Your task to perform on an android device: Go to Yahoo.com Image 0: 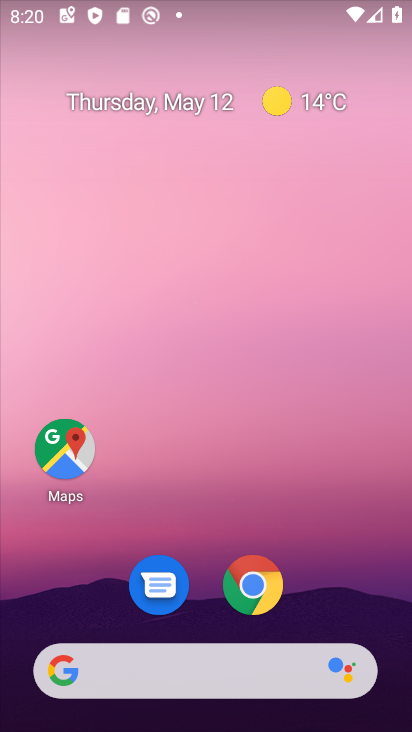
Step 0: click (146, 669)
Your task to perform on an android device: Go to Yahoo.com Image 1: 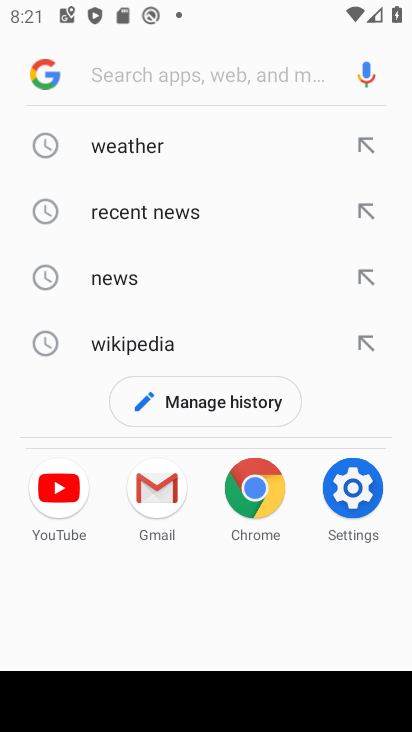
Step 1: type "yahoo.com"
Your task to perform on an android device: Go to Yahoo.com Image 2: 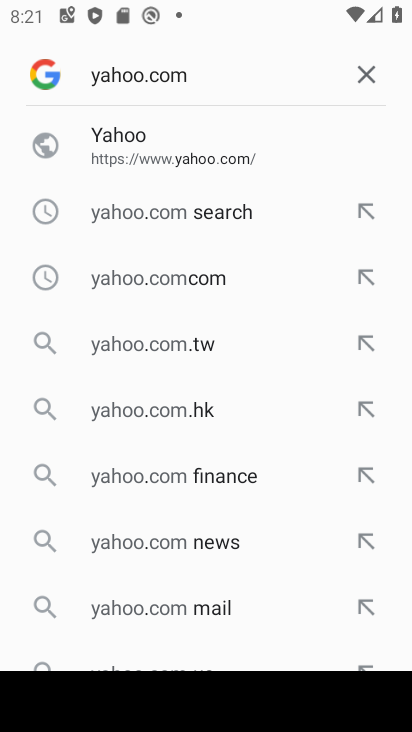
Step 2: click (123, 140)
Your task to perform on an android device: Go to Yahoo.com Image 3: 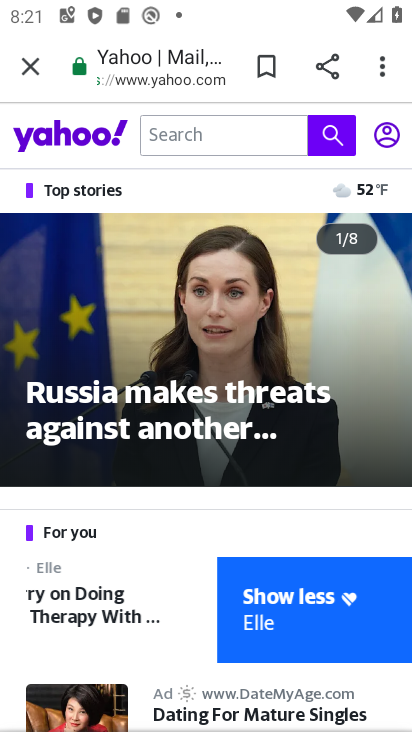
Step 3: task complete